Your task to perform on an android device: Set the phone to "Do not disturb". Image 0: 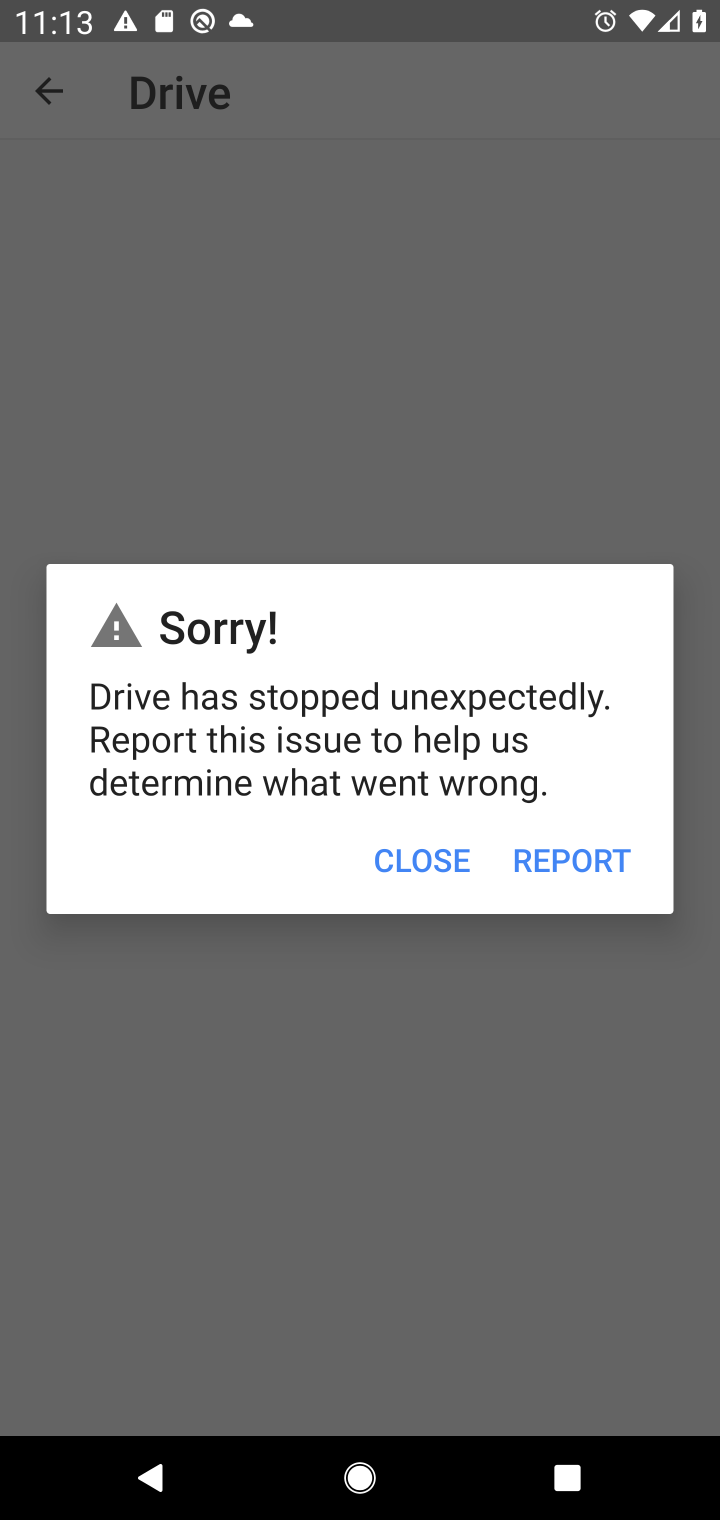
Step 0: press home button
Your task to perform on an android device: Set the phone to "Do not disturb". Image 1: 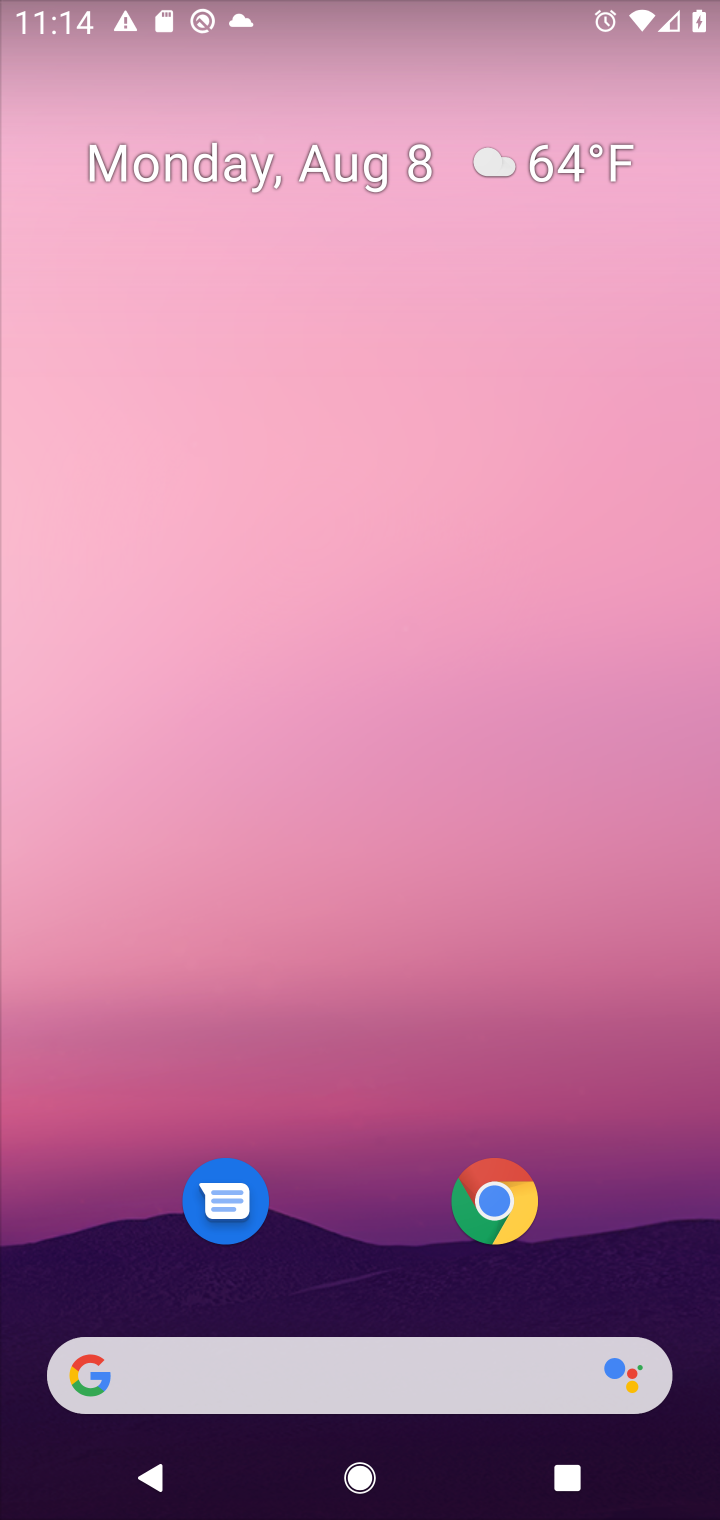
Step 1: drag from (371, 1186) to (473, 311)
Your task to perform on an android device: Set the phone to "Do not disturb". Image 2: 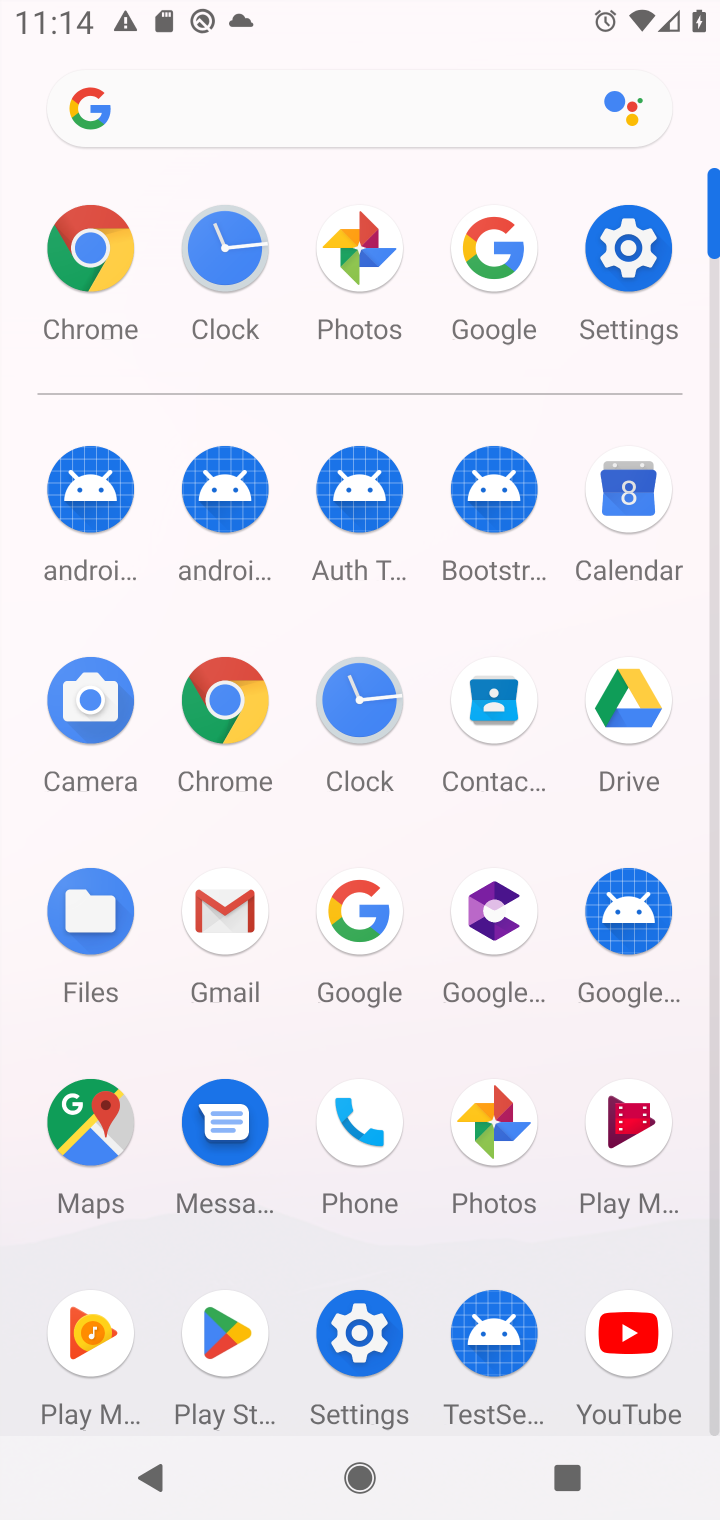
Step 2: click (632, 251)
Your task to perform on an android device: Set the phone to "Do not disturb". Image 3: 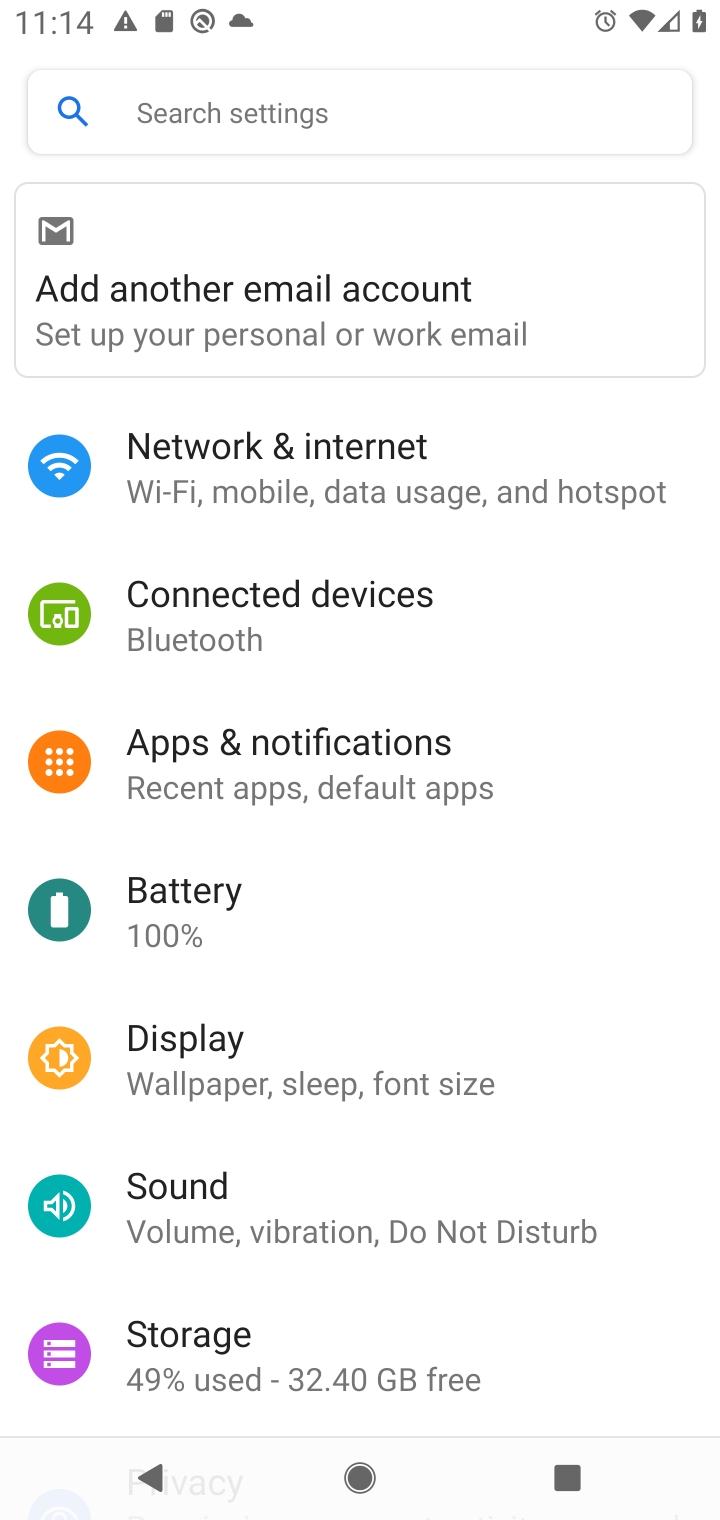
Step 3: drag from (599, 1128) to (610, 612)
Your task to perform on an android device: Set the phone to "Do not disturb". Image 4: 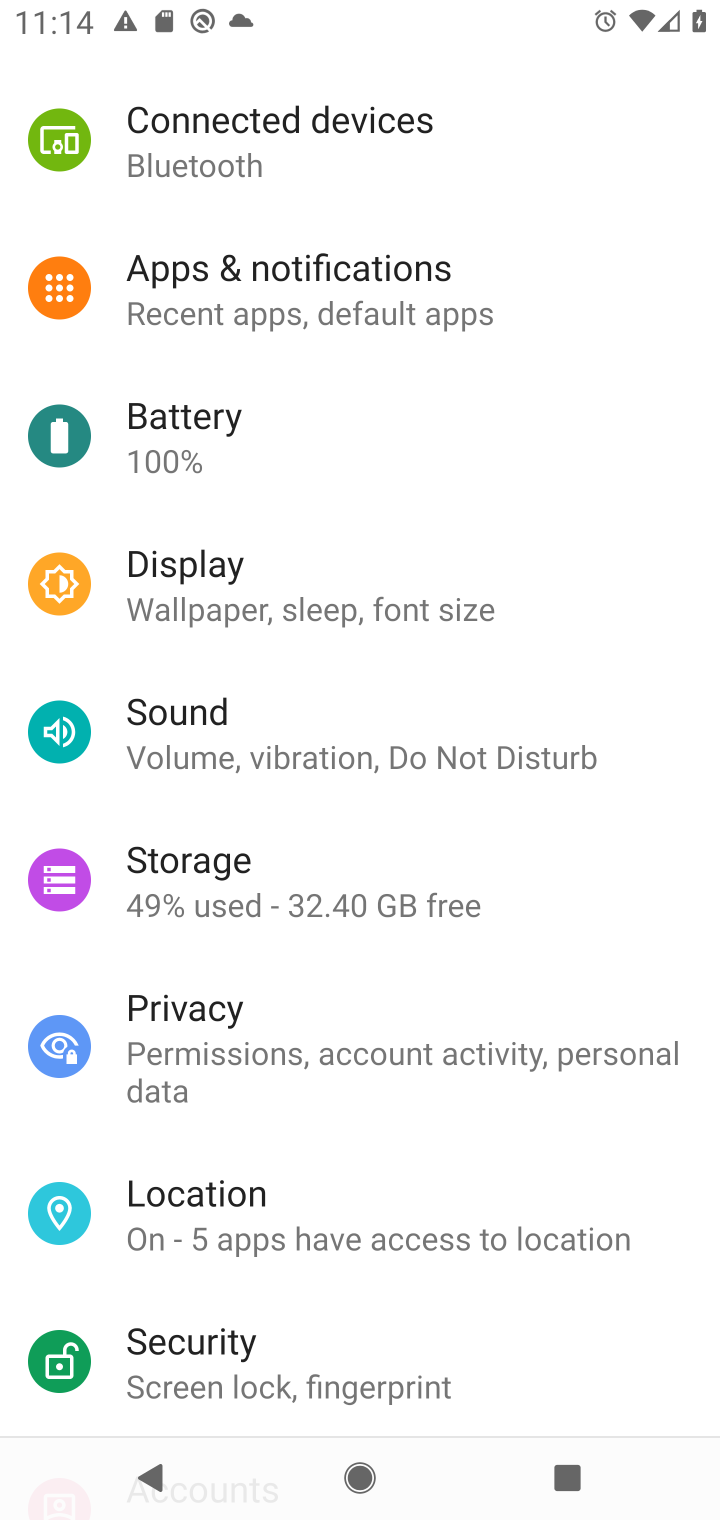
Step 4: drag from (579, 1128) to (594, 542)
Your task to perform on an android device: Set the phone to "Do not disturb". Image 5: 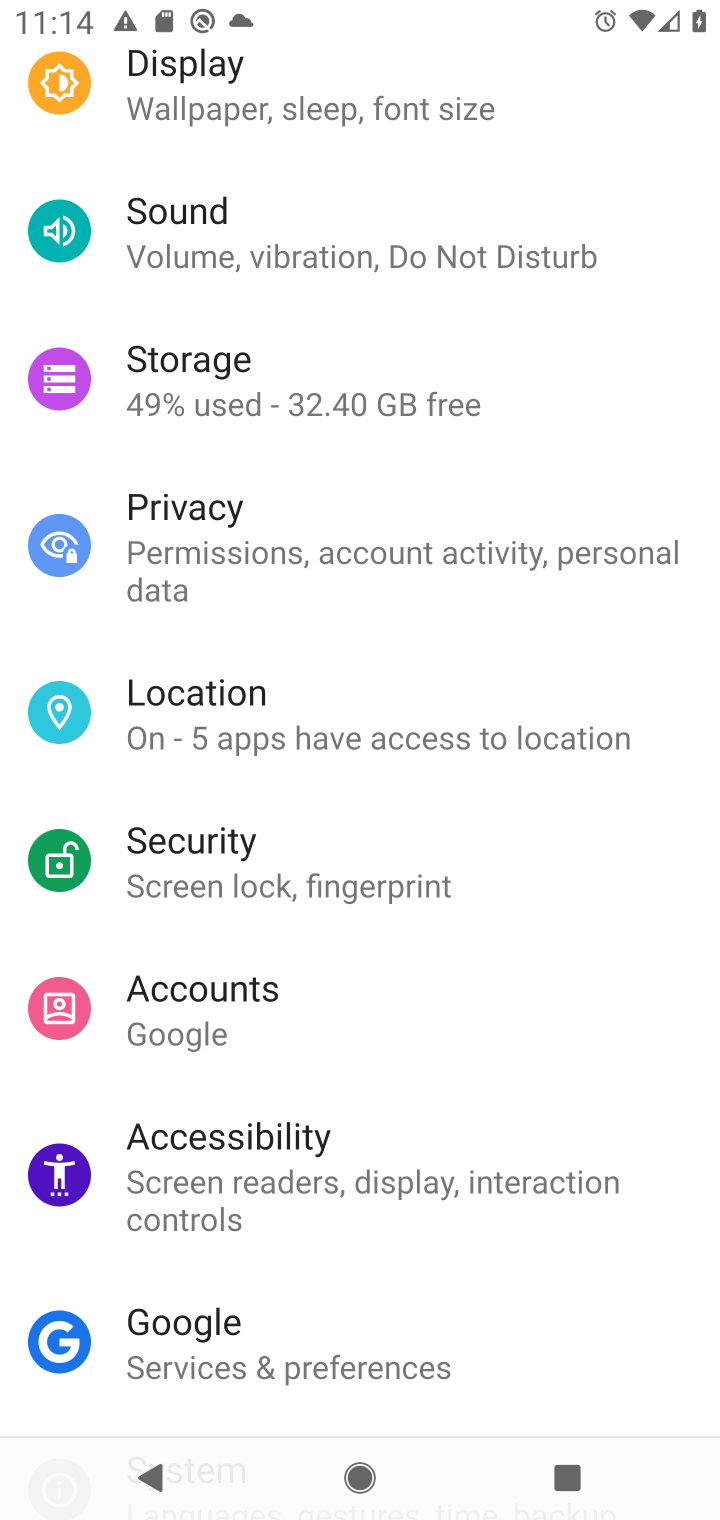
Step 5: drag from (572, 1027) to (562, 466)
Your task to perform on an android device: Set the phone to "Do not disturb". Image 6: 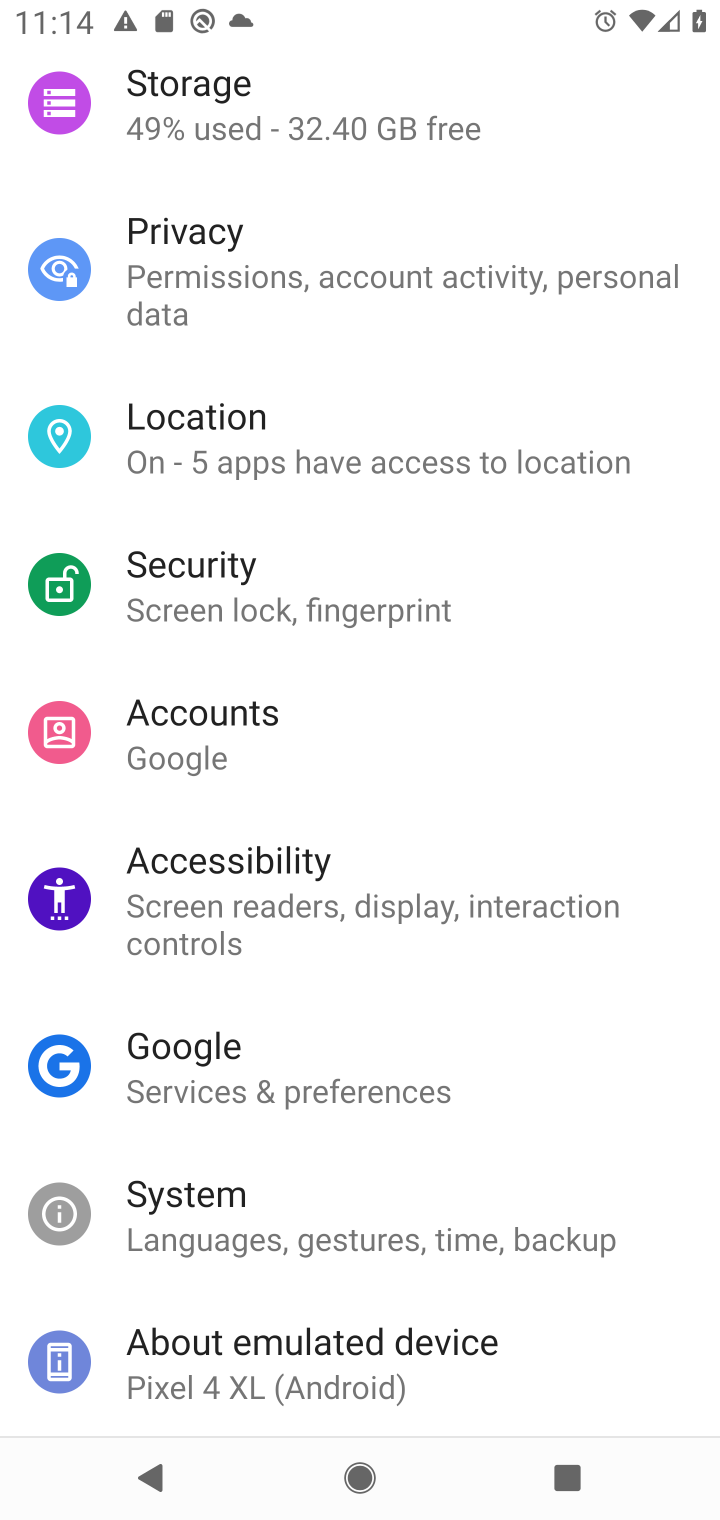
Step 6: drag from (556, 1023) to (551, 649)
Your task to perform on an android device: Set the phone to "Do not disturb". Image 7: 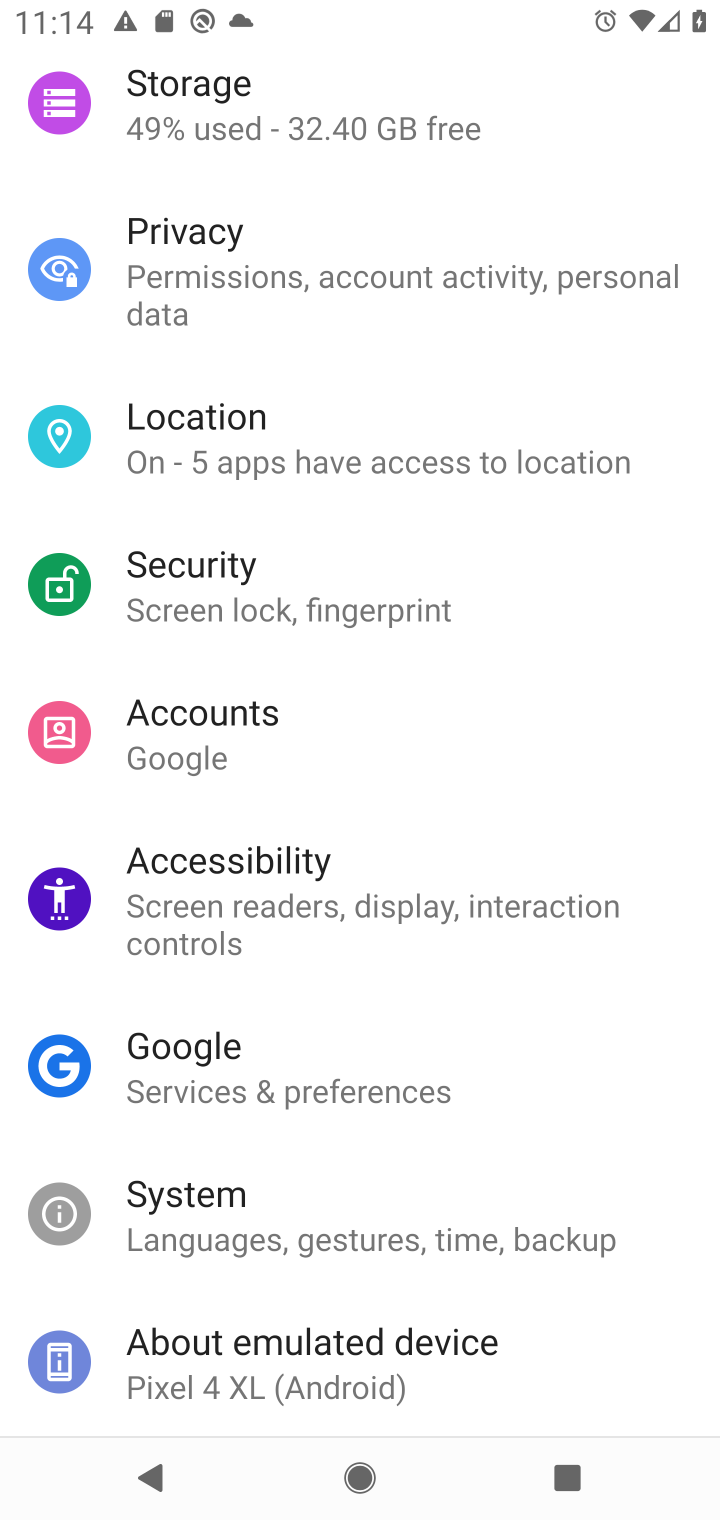
Step 7: drag from (576, 563) to (562, 852)
Your task to perform on an android device: Set the phone to "Do not disturb". Image 8: 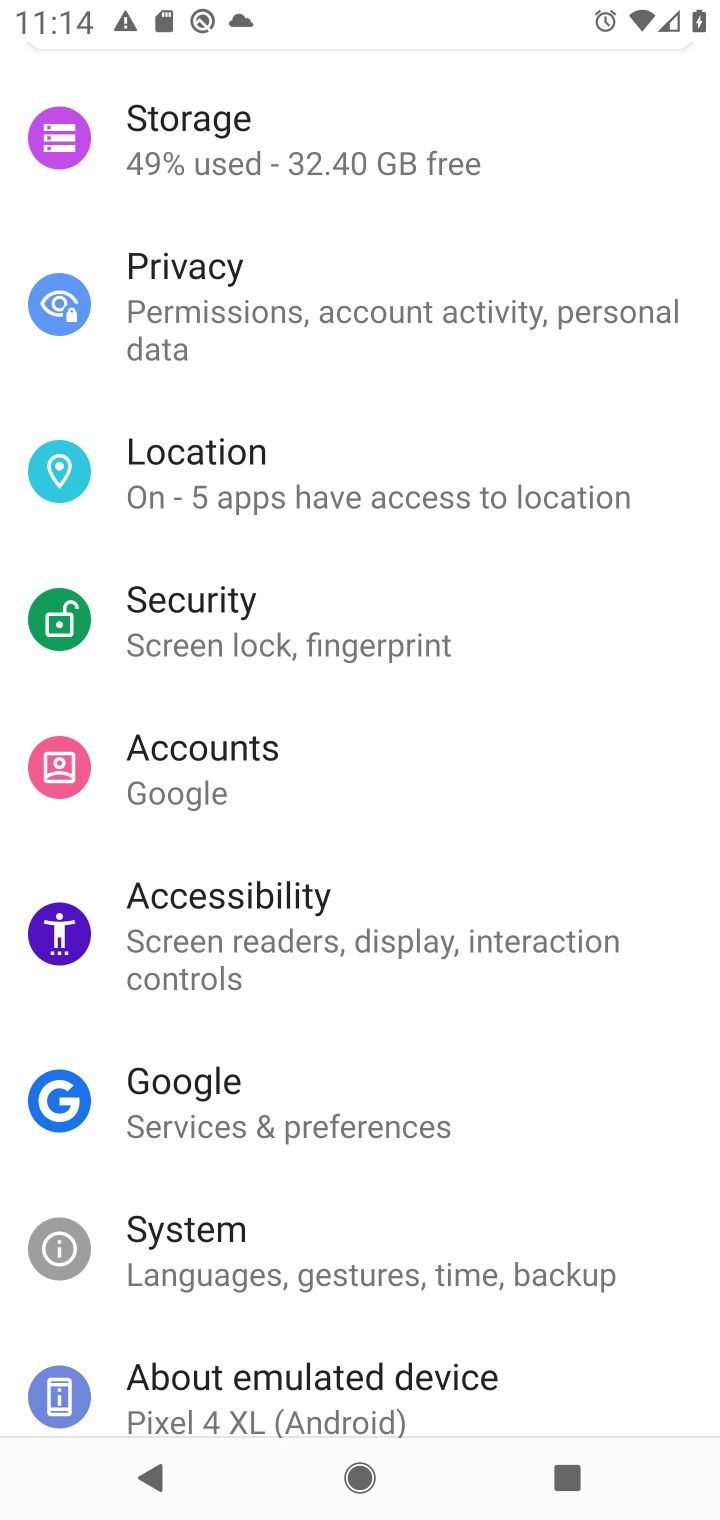
Step 8: drag from (541, 568) to (517, 942)
Your task to perform on an android device: Set the phone to "Do not disturb". Image 9: 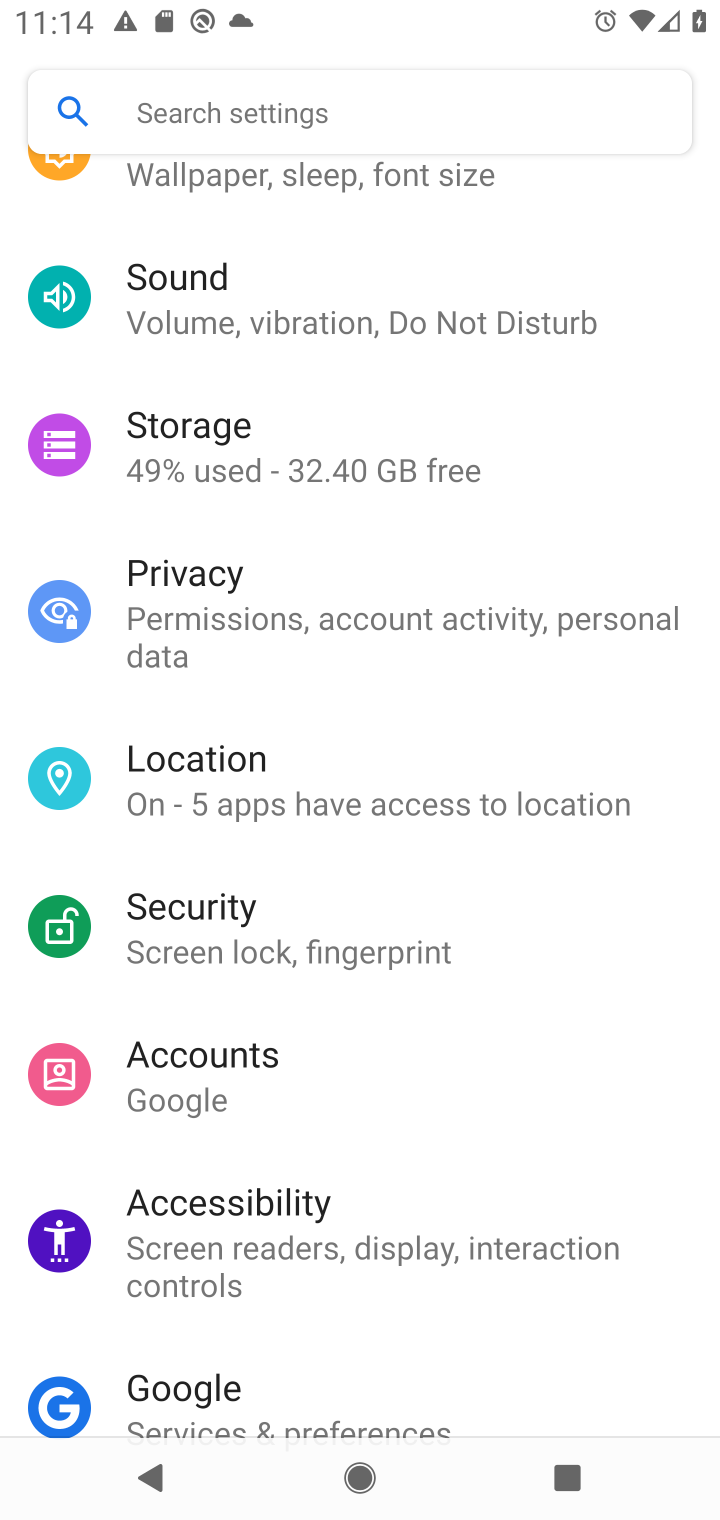
Step 9: drag from (574, 441) to (576, 770)
Your task to perform on an android device: Set the phone to "Do not disturb". Image 10: 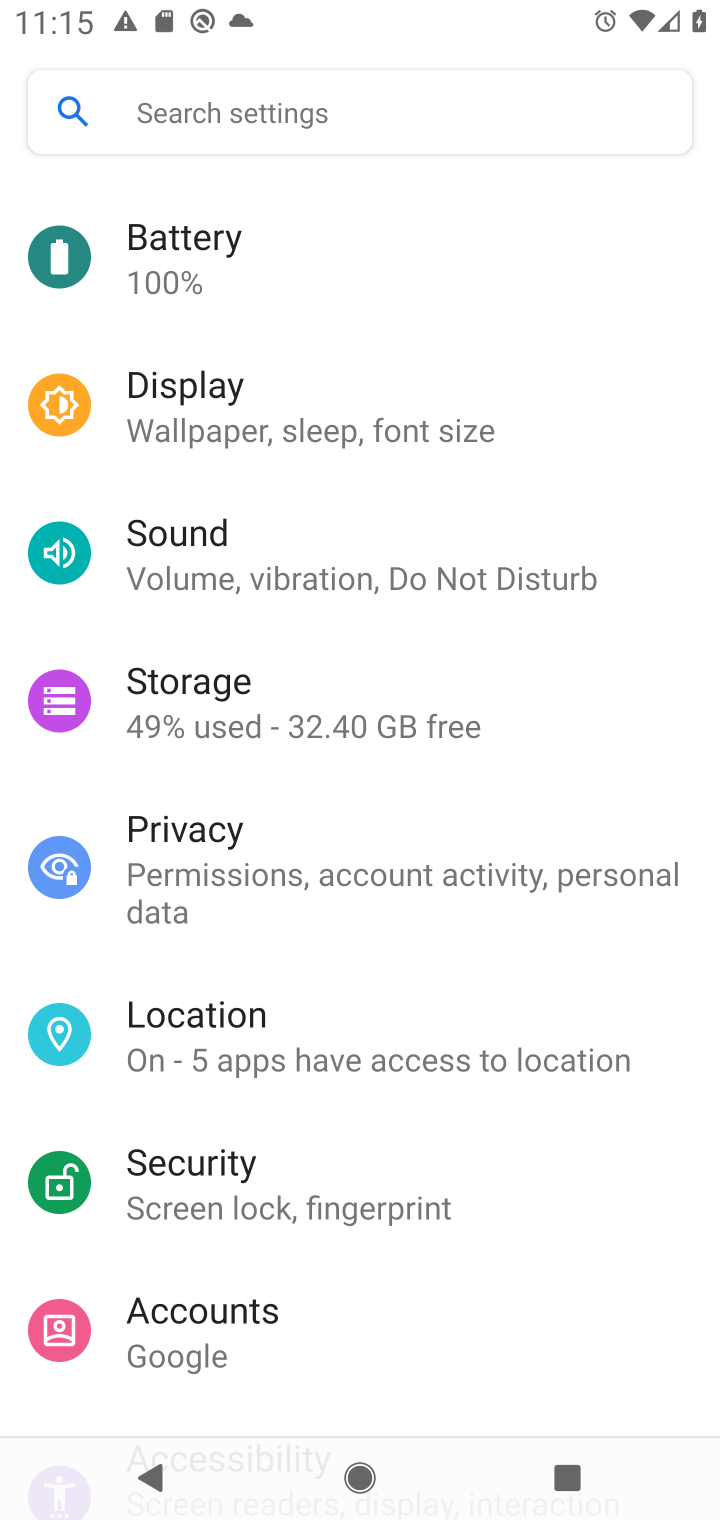
Step 10: click (522, 563)
Your task to perform on an android device: Set the phone to "Do not disturb". Image 11: 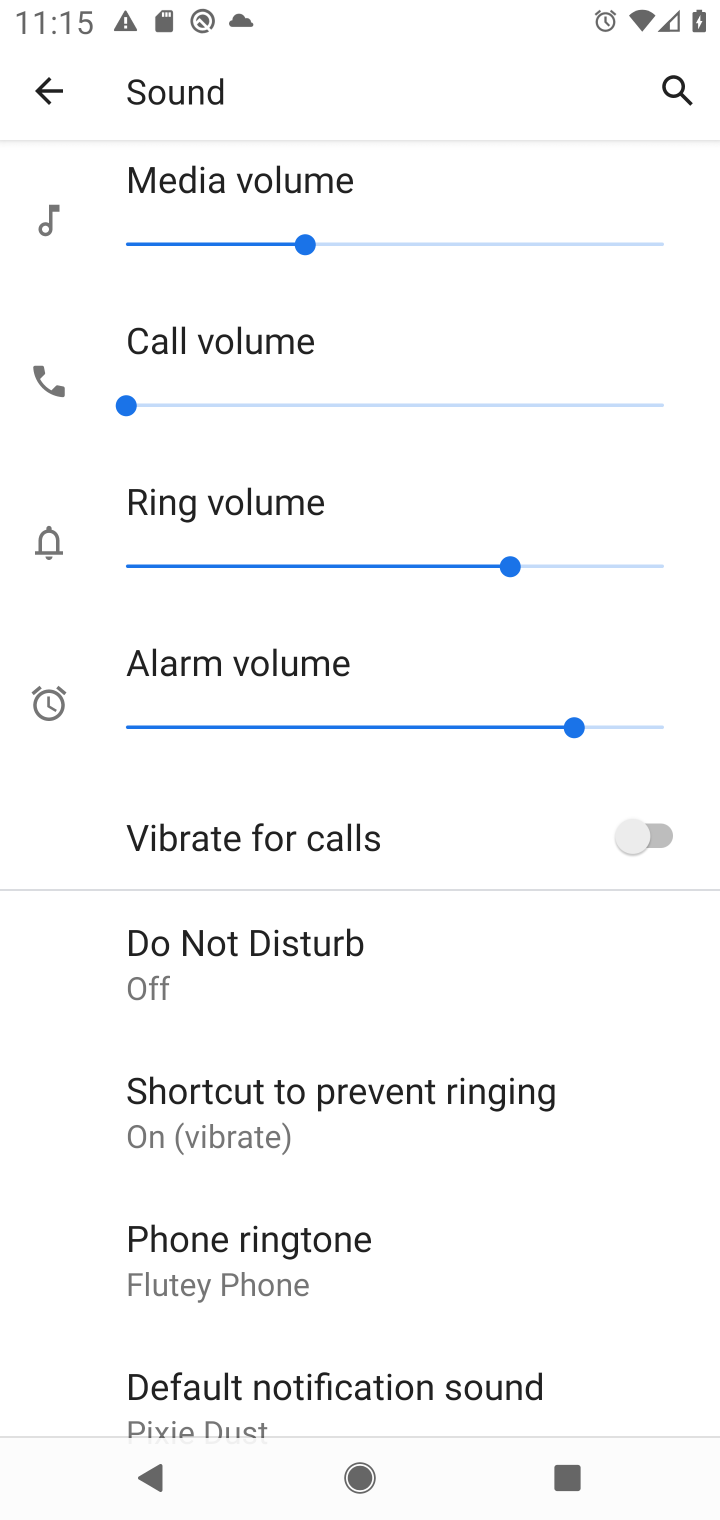
Step 11: click (315, 975)
Your task to perform on an android device: Set the phone to "Do not disturb". Image 12: 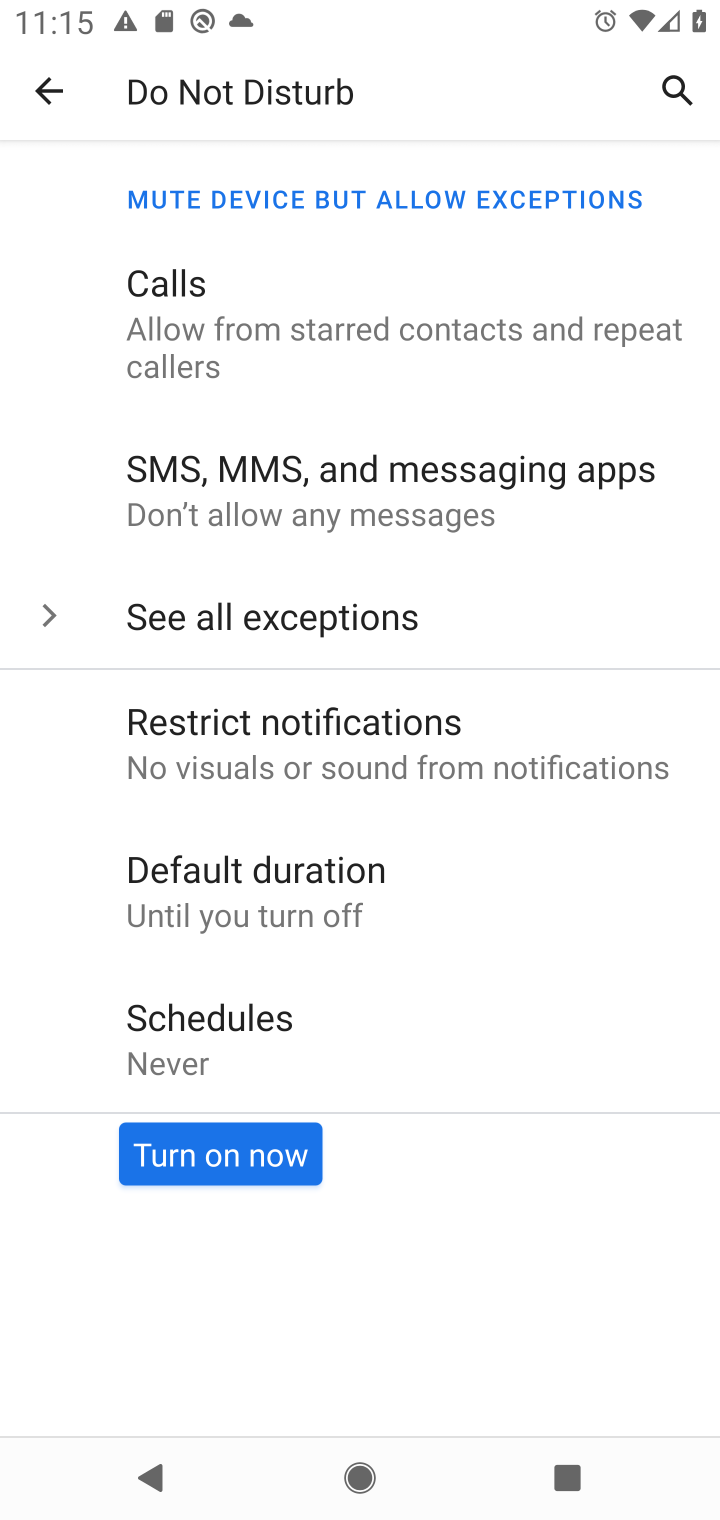
Step 12: click (252, 1171)
Your task to perform on an android device: Set the phone to "Do not disturb". Image 13: 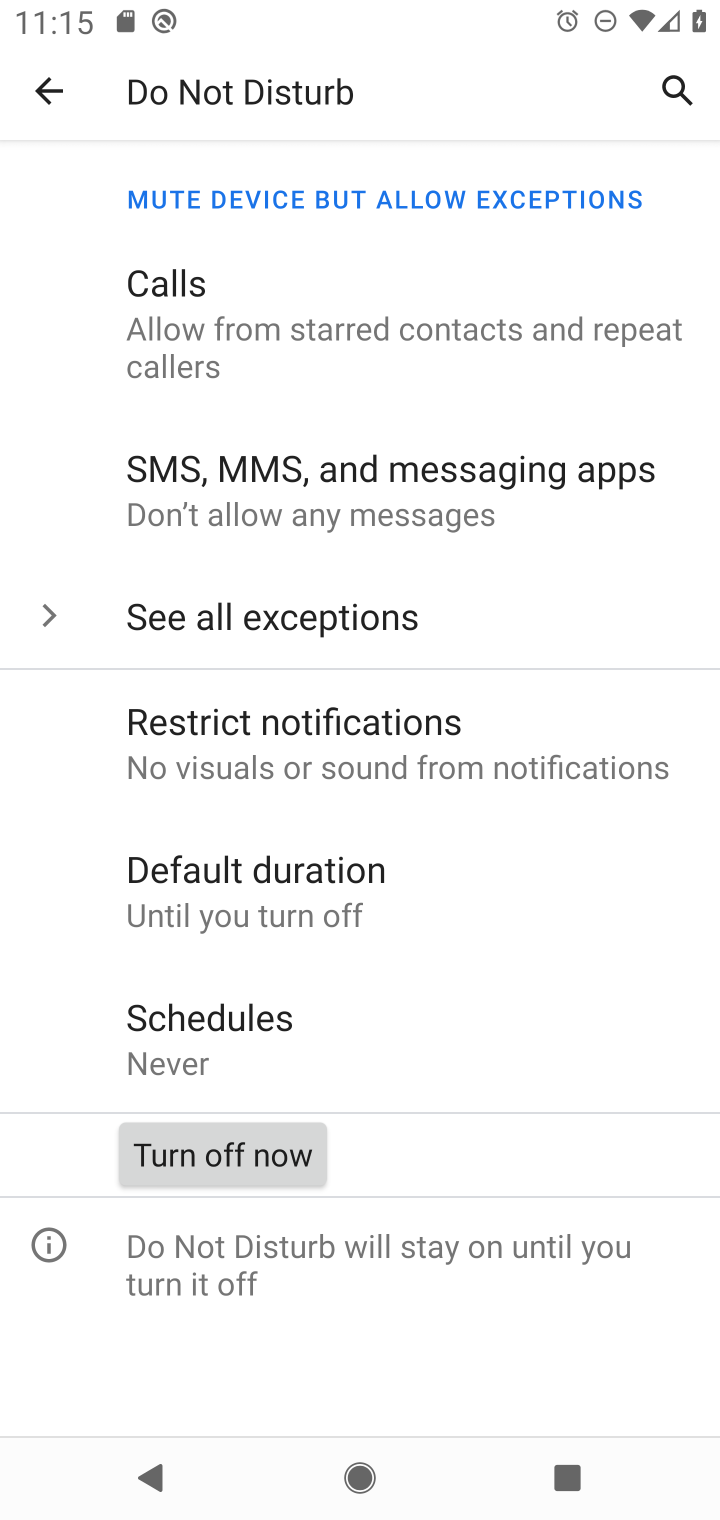
Step 13: task complete